Your task to perform on an android device: Open Google Maps and go to "Timeline" Image 0: 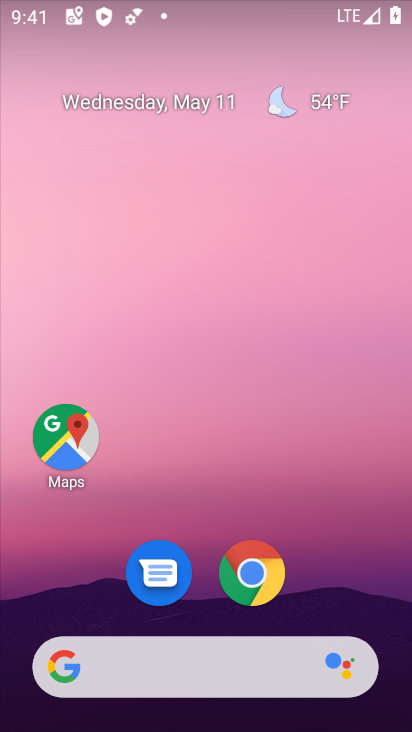
Step 0: drag from (357, 648) to (208, 3)
Your task to perform on an android device: Open Google Maps and go to "Timeline" Image 1: 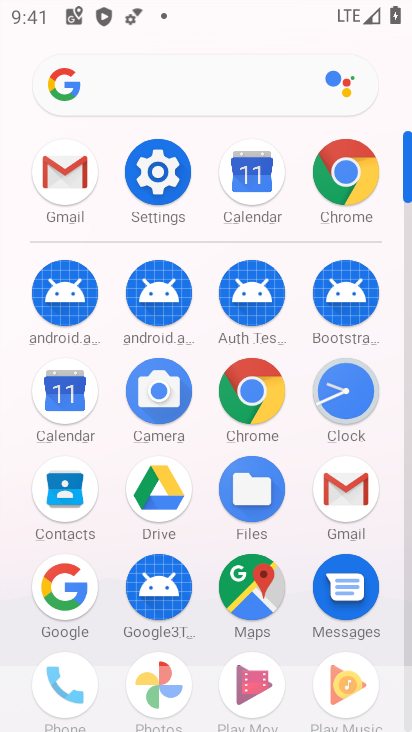
Step 1: click (246, 586)
Your task to perform on an android device: Open Google Maps and go to "Timeline" Image 2: 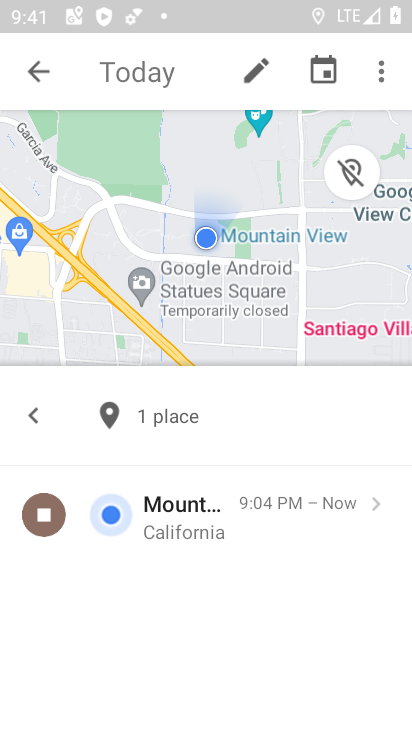
Step 2: task complete